Your task to perform on an android device: create a new album in the google photos Image 0: 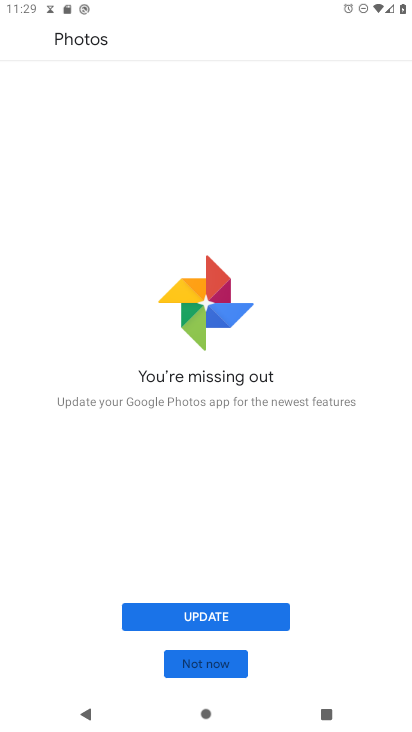
Step 0: press home button
Your task to perform on an android device: create a new album in the google photos Image 1: 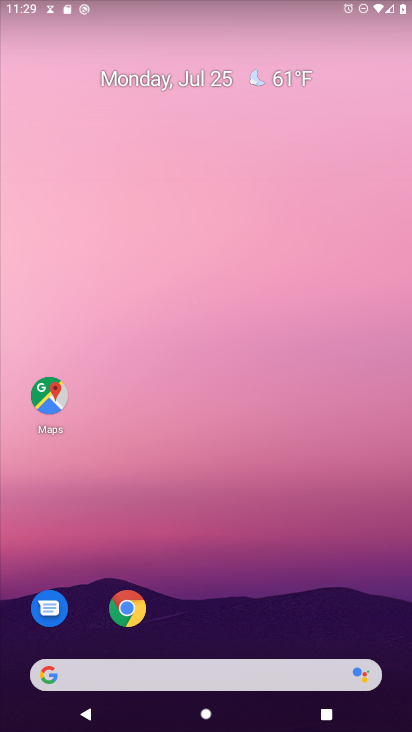
Step 1: drag from (188, 672) to (240, 267)
Your task to perform on an android device: create a new album in the google photos Image 2: 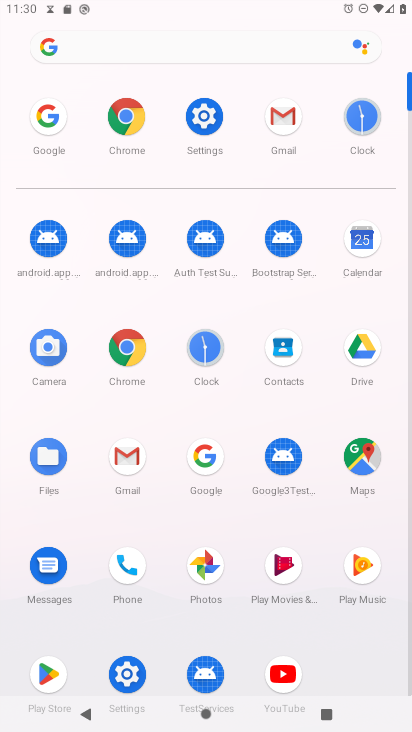
Step 2: click (205, 565)
Your task to perform on an android device: create a new album in the google photos Image 3: 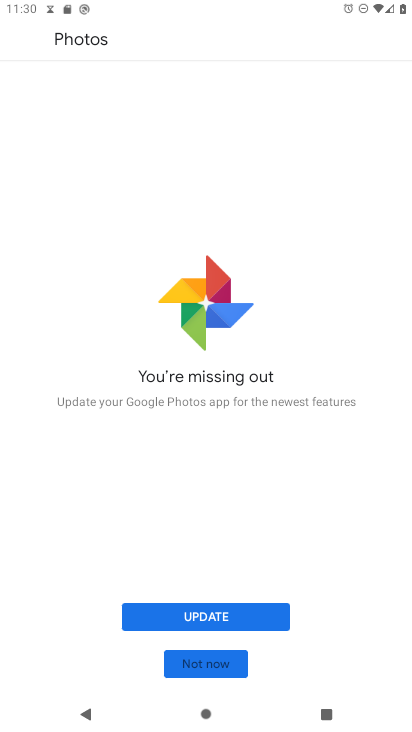
Step 3: click (213, 614)
Your task to perform on an android device: create a new album in the google photos Image 4: 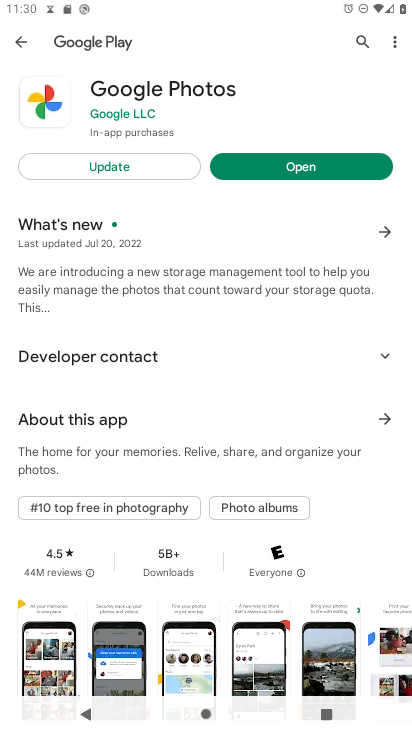
Step 4: click (105, 165)
Your task to perform on an android device: create a new album in the google photos Image 5: 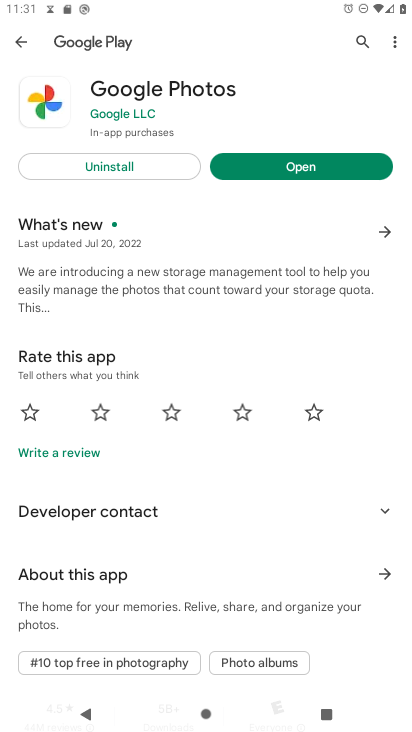
Step 5: click (309, 167)
Your task to perform on an android device: create a new album in the google photos Image 6: 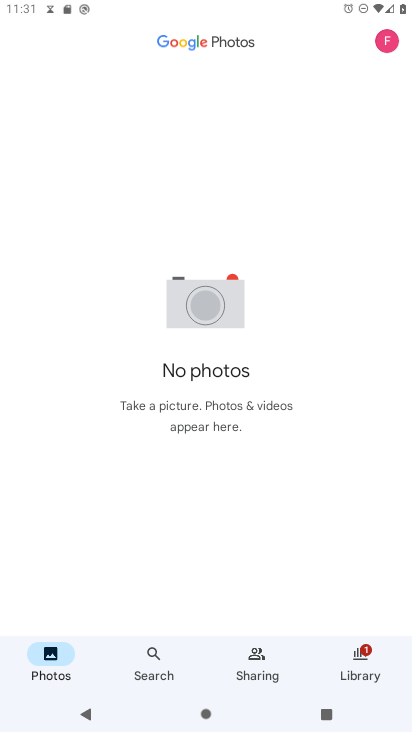
Step 6: click (367, 656)
Your task to perform on an android device: create a new album in the google photos Image 7: 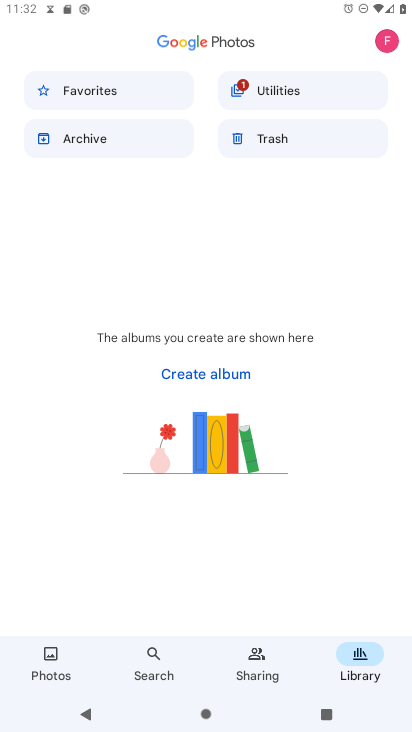
Step 7: click (282, 91)
Your task to perform on an android device: create a new album in the google photos Image 8: 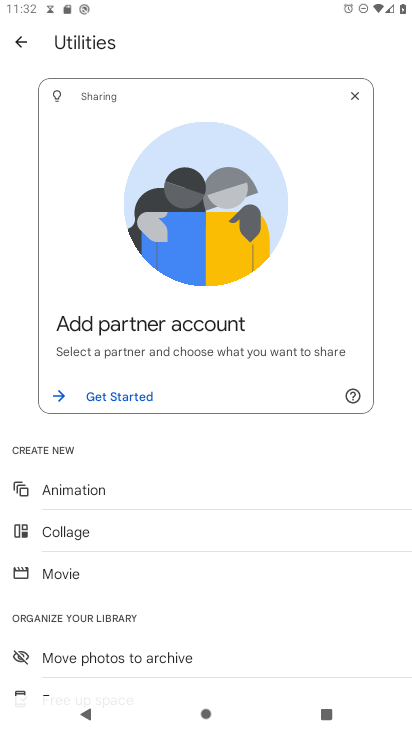
Step 8: press back button
Your task to perform on an android device: create a new album in the google photos Image 9: 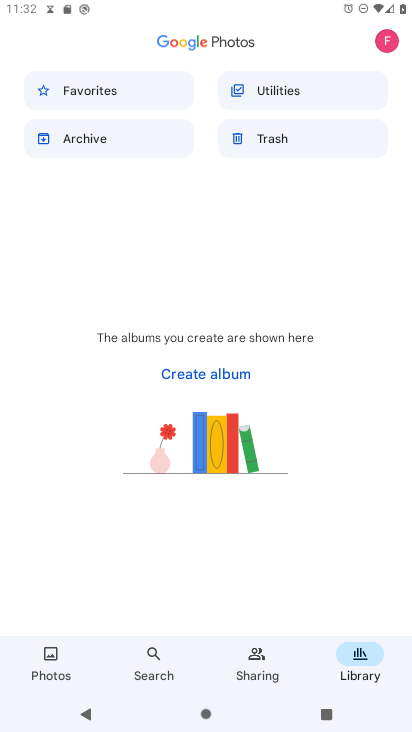
Step 9: click (103, 95)
Your task to perform on an android device: create a new album in the google photos Image 10: 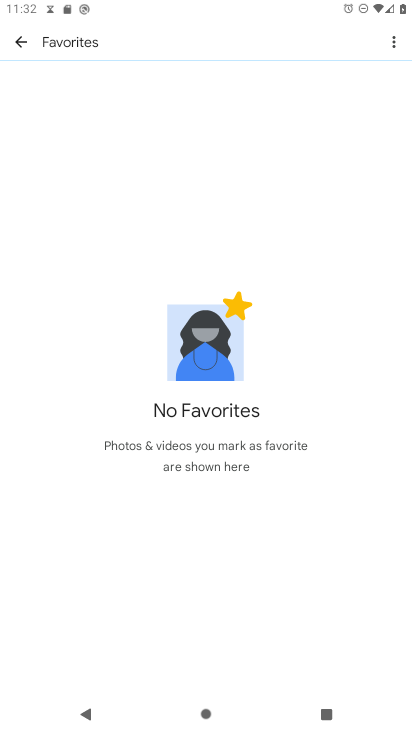
Step 10: press back button
Your task to perform on an android device: create a new album in the google photos Image 11: 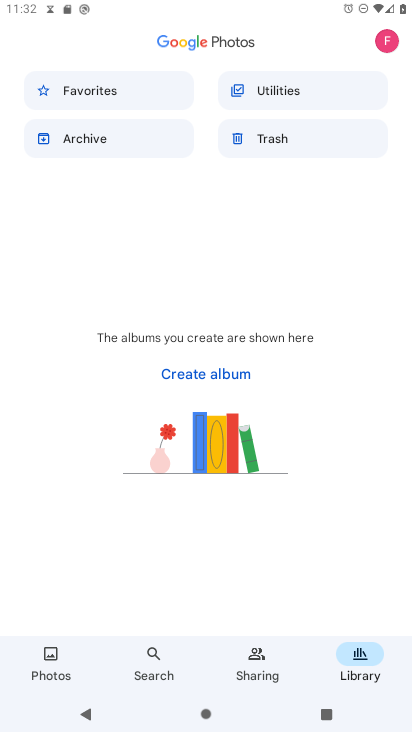
Step 11: click (253, 661)
Your task to perform on an android device: create a new album in the google photos Image 12: 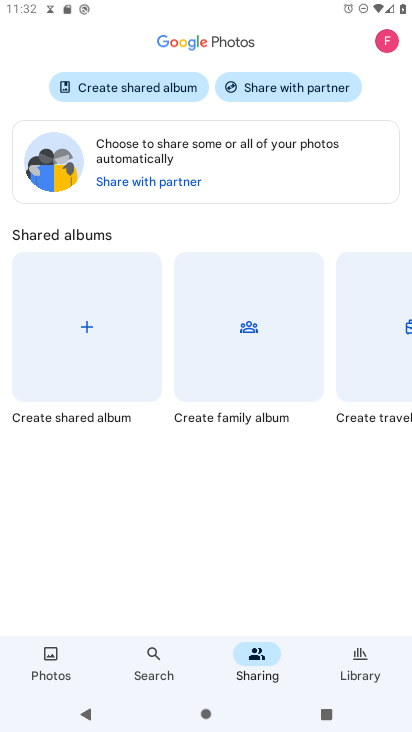
Step 12: click (86, 325)
Your task to perform on an android device: create a new album in the google photos Image 13: 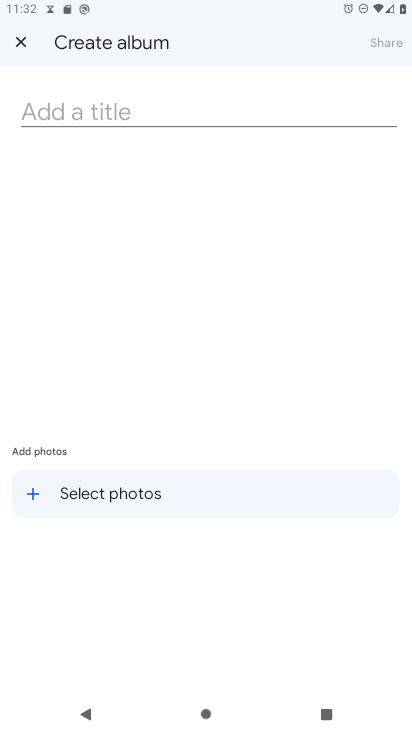
Step 13: click (32, 489)
Your task to perform on an android device: create a new album in the google photos Image 14: 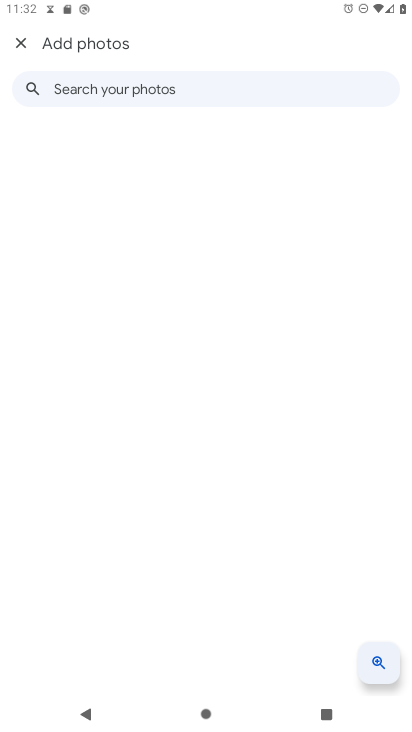
Step 14: click (277, 92)
Your task to perform on an android device: create a new album in the google photos Image 15: 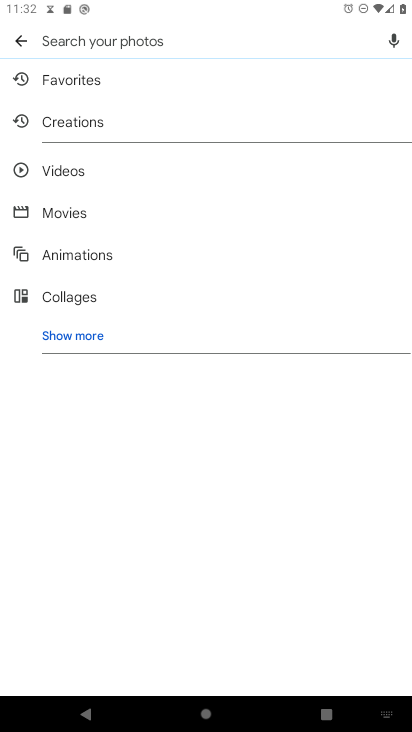
Step 15: click (90, 81)
Your task to perform on an android device: create a new album in the google photos Image 16: 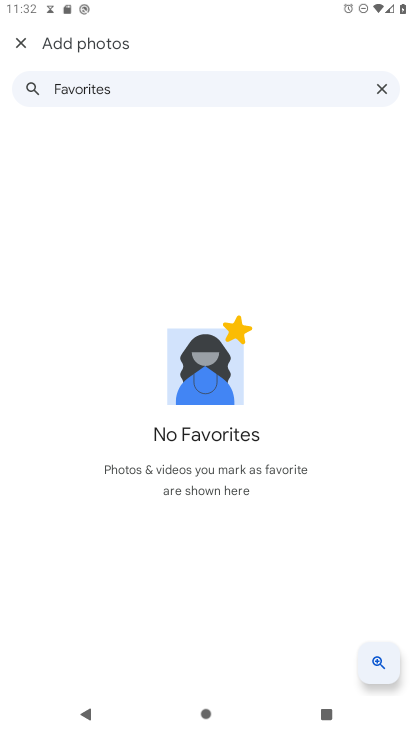
Step 16: click (28, 39)
Your task to perform on an android device: create a new album in the google photos Image 17: 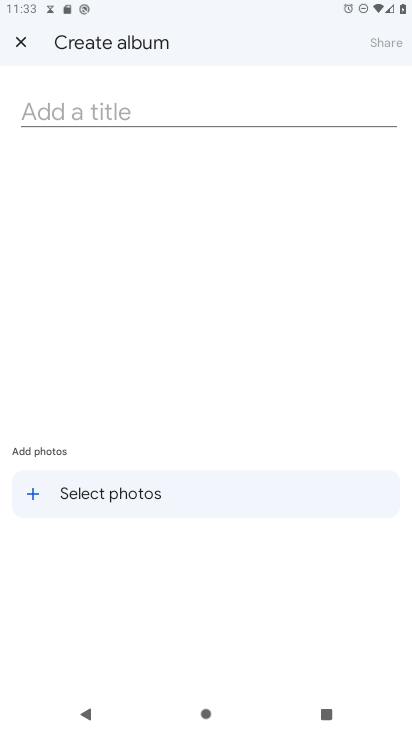
Step 17: click (34, 494)
Your task to perform on an android device: create a new album in the google photos Image 18: 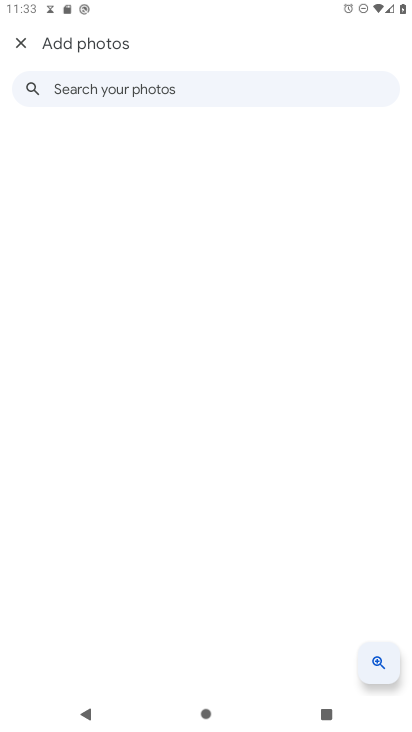
Step 18: press back button
Your task to perform on an android device: create a new album in the google photos Image 19: 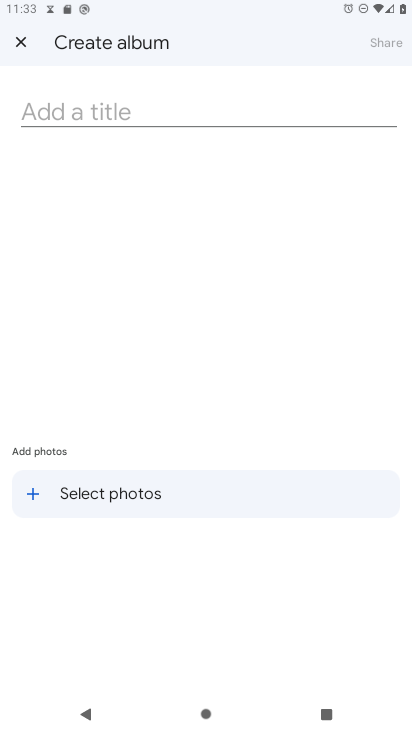
Step 19: click (208, 118)
Your task to perform on an android device: create a new album in the google photos Image 20: 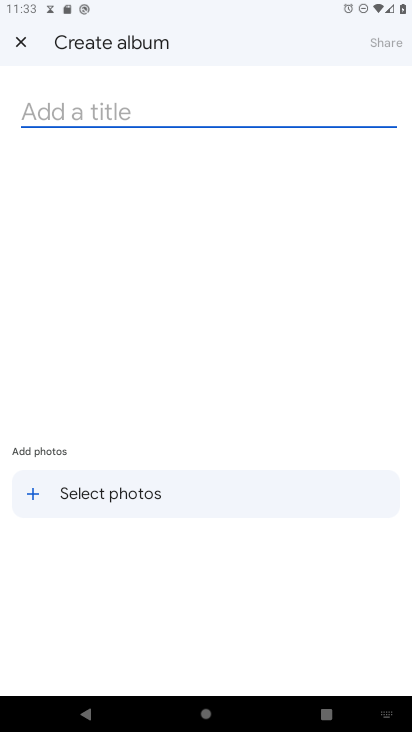
Step 20: type "Mauj"
Your task to perform on an android device: create a new album in the google photos Image 21: 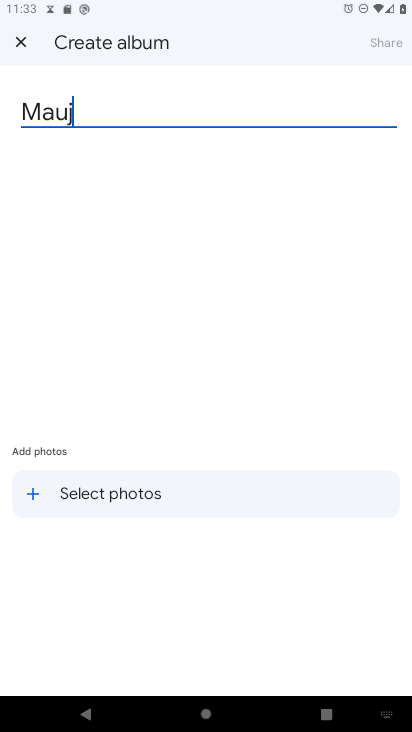
Step 21: task complete